Your task to perform on an android device: Empty the shopping cart on costco.com. Search for "dell xps" on costco.com, select the first entry, add it to the cart, then select checkout. Image 0: 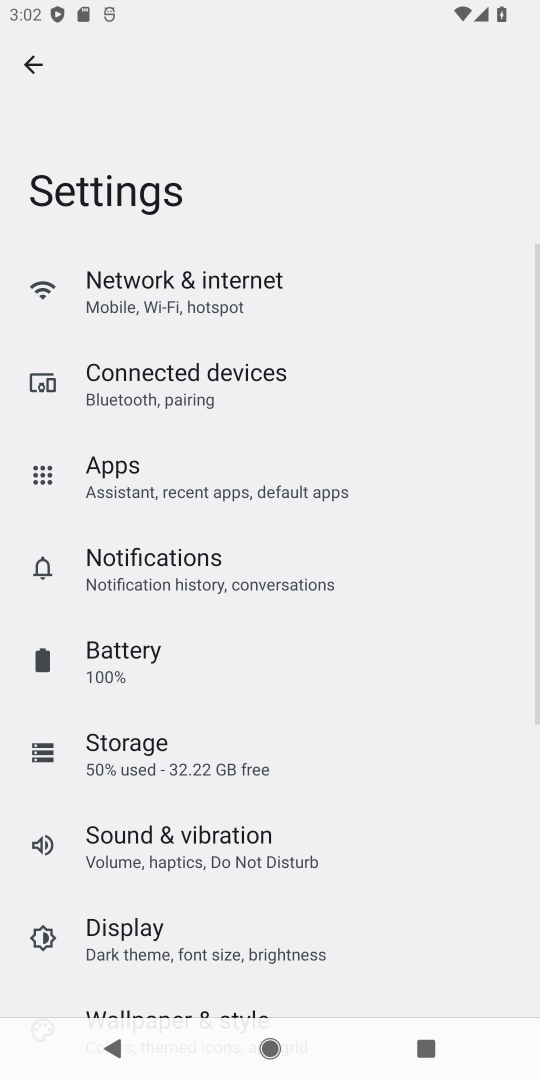
Step 0: press home button
Your task to perform on an android device: Empty the shopping cart on costco.com. Search for "dell xps" on costco.com, select the first entry, add it to the cart, then select checkout. Image 1: 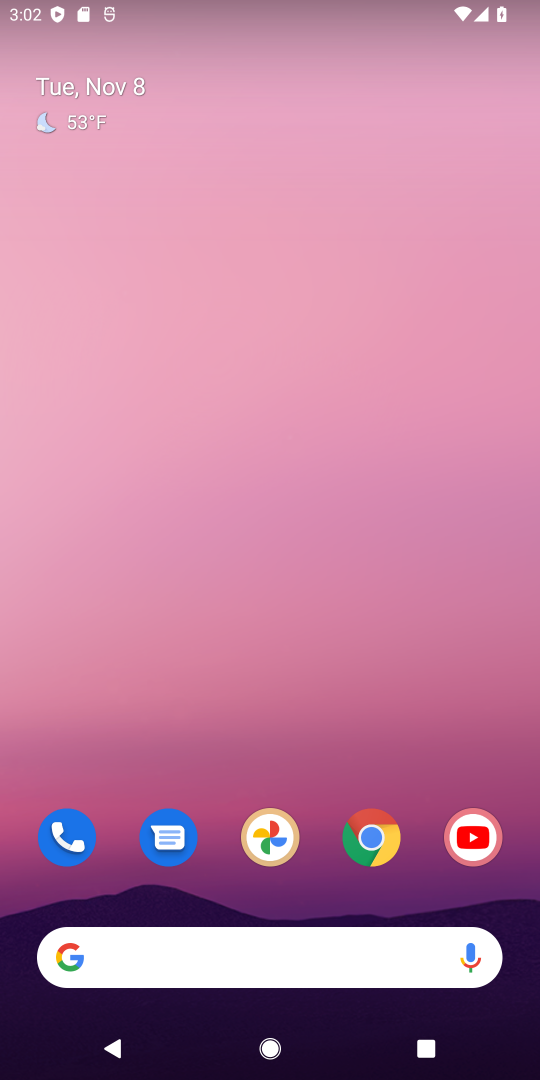
Step 1: click (366, 839)
Your task to perform on an android device: Empty the shopping cart on costco.com. Search for "dell xps" on costco.com, select the first entry, add it to the cart, then select checkout. Image 2: 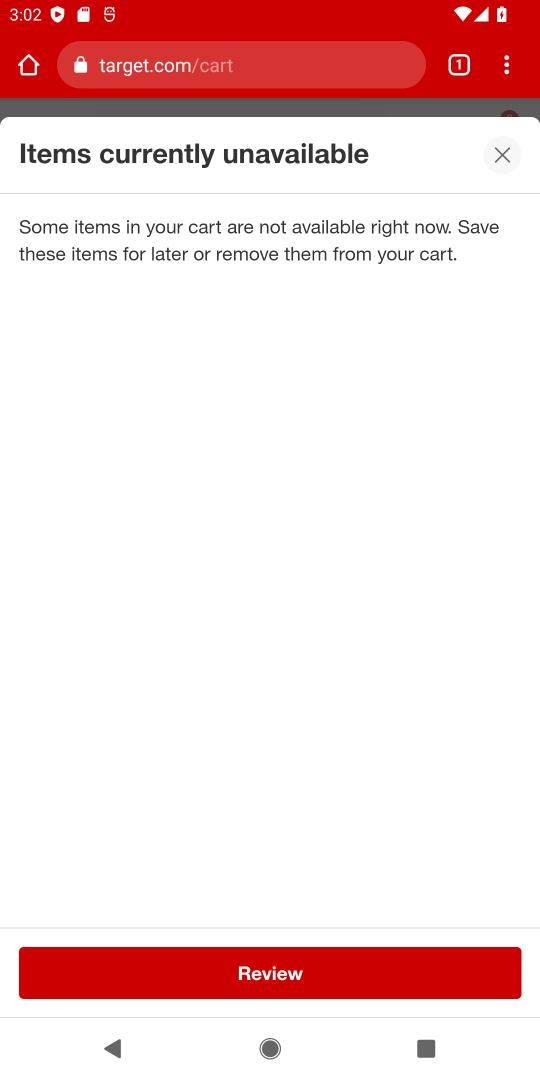
Step 2: click (173, 57)
Your task to perform on an android device: Empty the shopping cart on costco.com. Search for "dell xps" on costco.com, select the first entry, add it to the cart, then select checkout. Image 3: 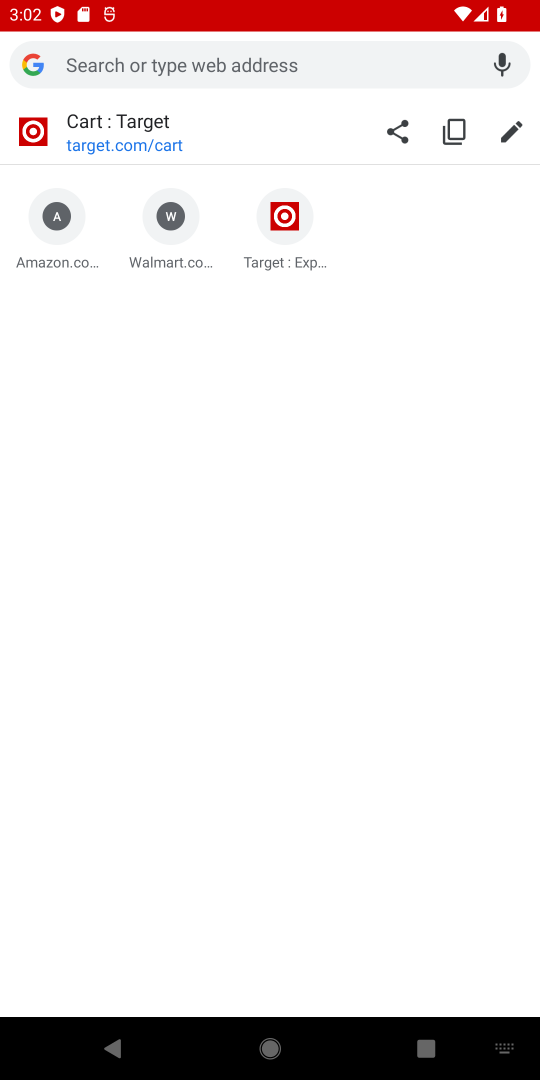
Step 3: type "costco"
Your task to perform on an android device: Empty the shopping cart on costco.com. Search for "dell xps" on costco.com, select the first entry, add it to the cart, then select checkout. Image 4: 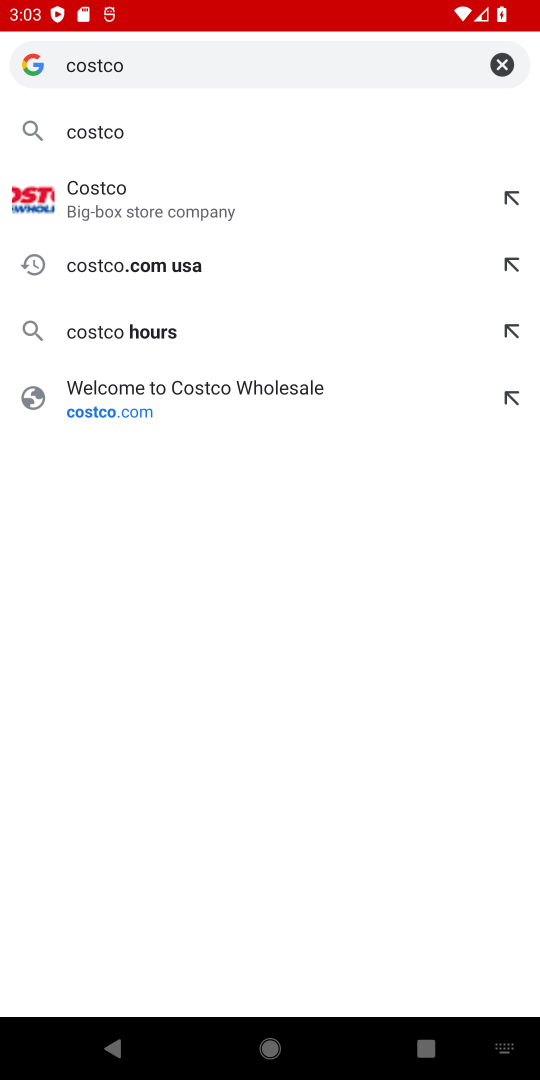
Step 4: click (120, 204)
Your task to perform on an android device: Empty the shopping cart on costco.com. Search for "dell xps" on costco.com, select the first entry, add it to the cart, then select checkout. Image 5: 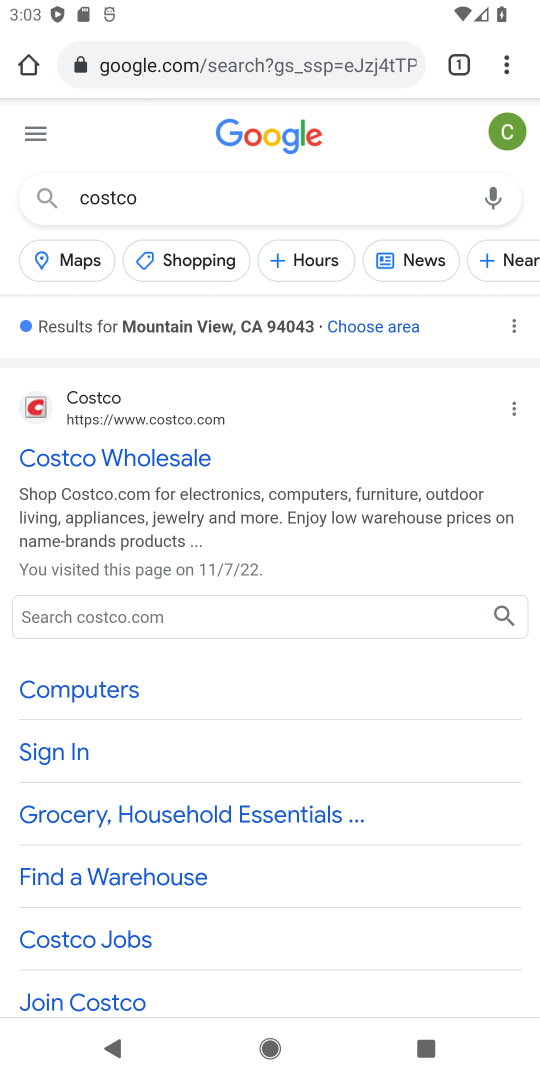
Step 5: click (128, 455)
Your task to perform on an android device: Empty the shopping cart on costco.com. Search for "dell xps" on costco.com, select the first entry, add it to the cart, then select checkout. Image 6: 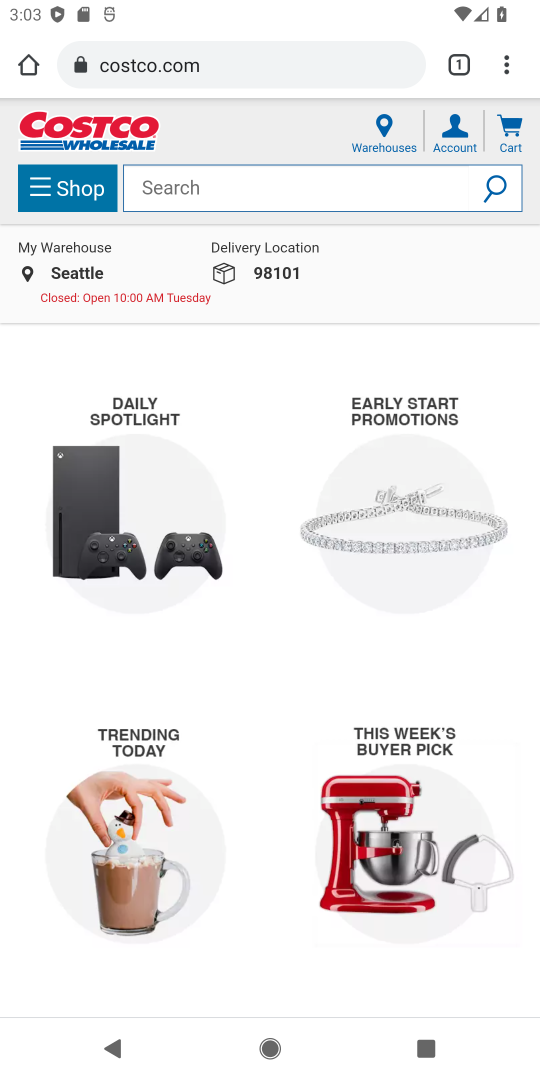
Step 6: click (182, 190)
Your task to perform on an android device: Empty the shopping cart on costco.com. Search for "dell xps" on costco.com, select the first entry, add it to the cart, then select checkout. Image 7: 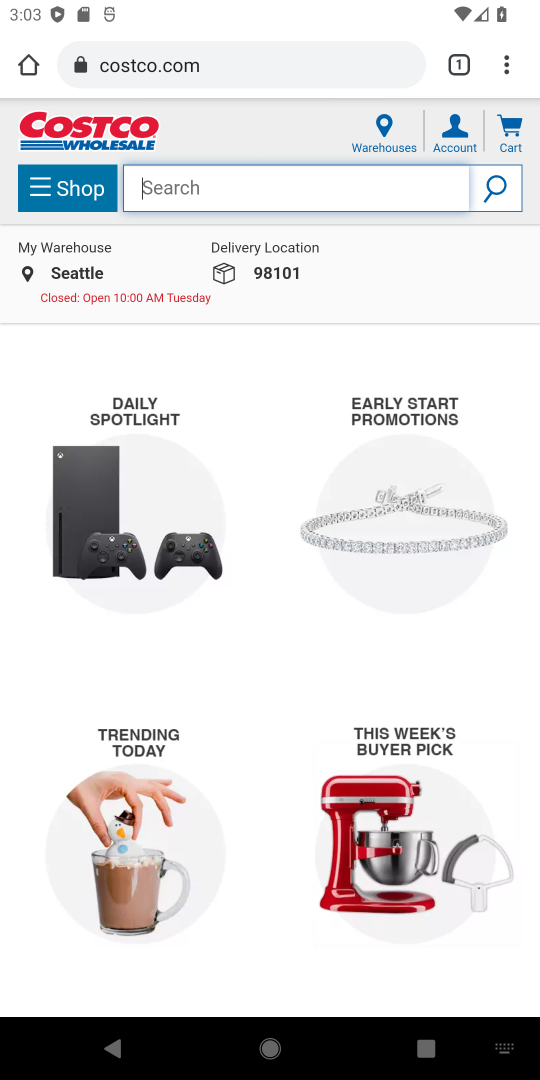
Step 7: type "dell xps"
Your task to perform on an android device: Empty the shopping cart on costco.com. Search for "dell xps" on costco.com, select the first entry, add it to the cart, then select checkout. Image 8: 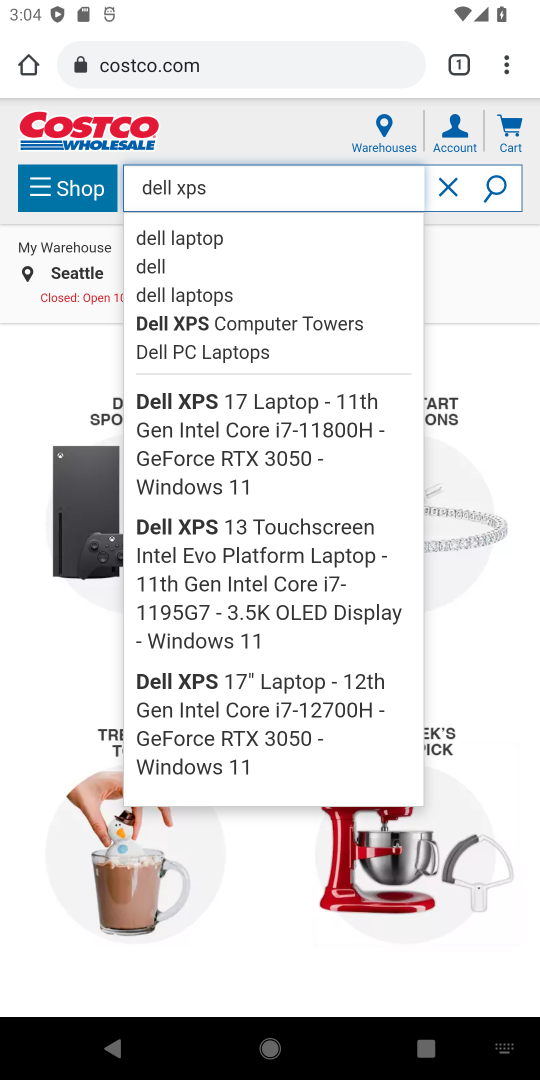
Step 8: click (189, 331)
Your task to perform on an android device: Empty the shopping cart on costco.com. Search for "dell xps" on costco.com, select the first entry, add it to the cart, then select checkout. Image 9: 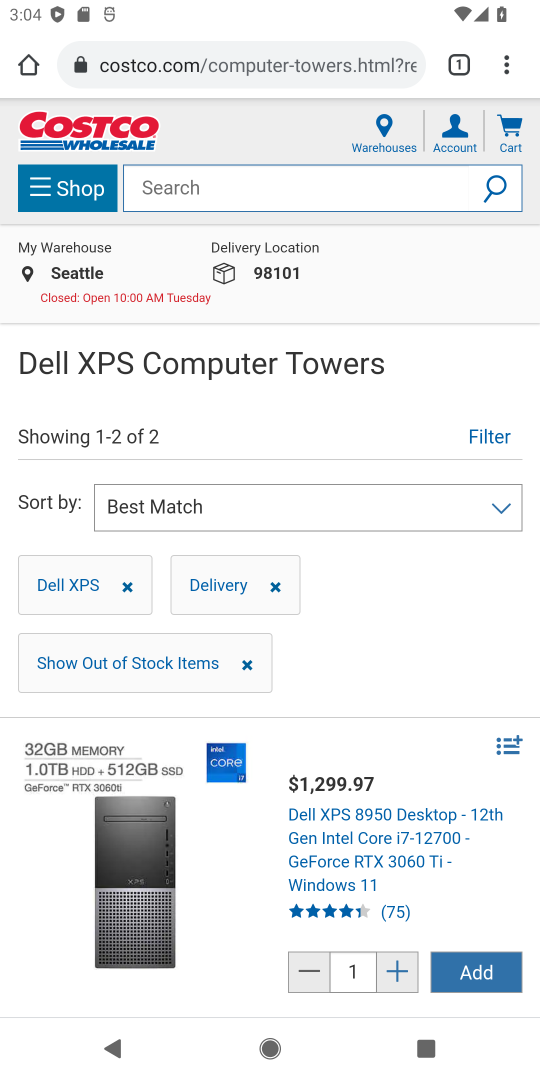
Step 9: drag from (225, 781) to (310, 296)
Your task to perform on an android device: Empty the shopping cart on costco.com. Search for "dell xps" on costco.com, select the first entry, add it to the cart, then select checkout. Image 10: 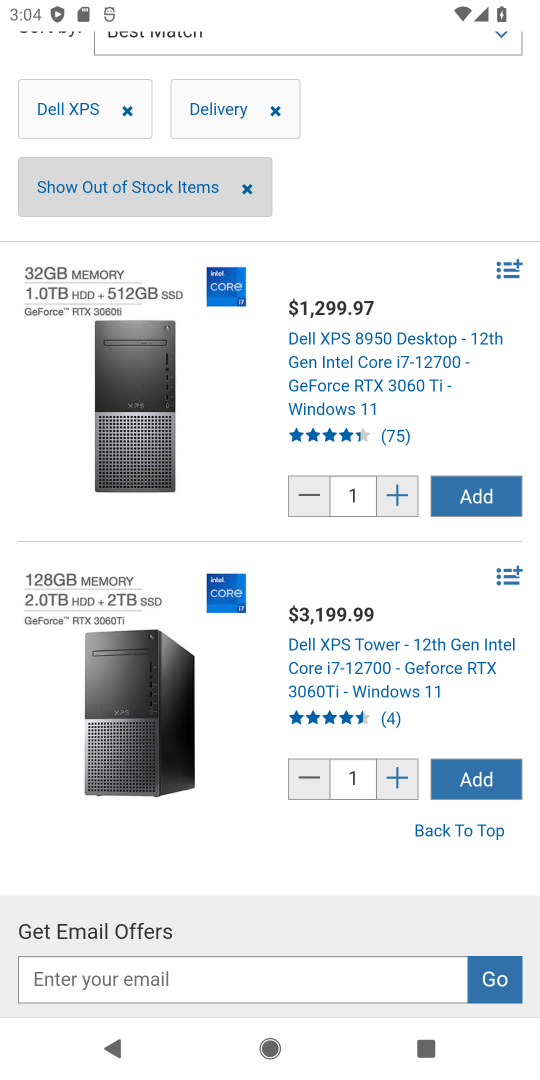
Step 10: click (318, 365)
Your task to perform on an android device: Empty the shopping cart on costco.com. Search for "dell xps" on costco.com, select the first entry, add it to the cart, then select checkout. Image 11: 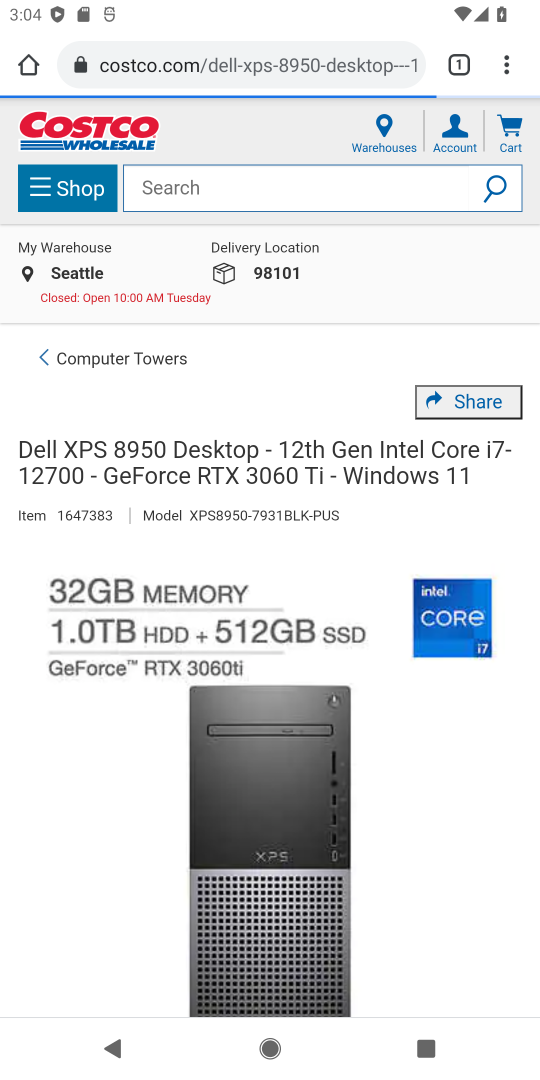
Step 11: drag from (353, 869) to (384, 260)
Your task to perform on an android device: Empty the shopping cart on costco.com. Search for "dell xps" on costco.com, select the first entry, add it to the cart, then select checkout. Image 12: 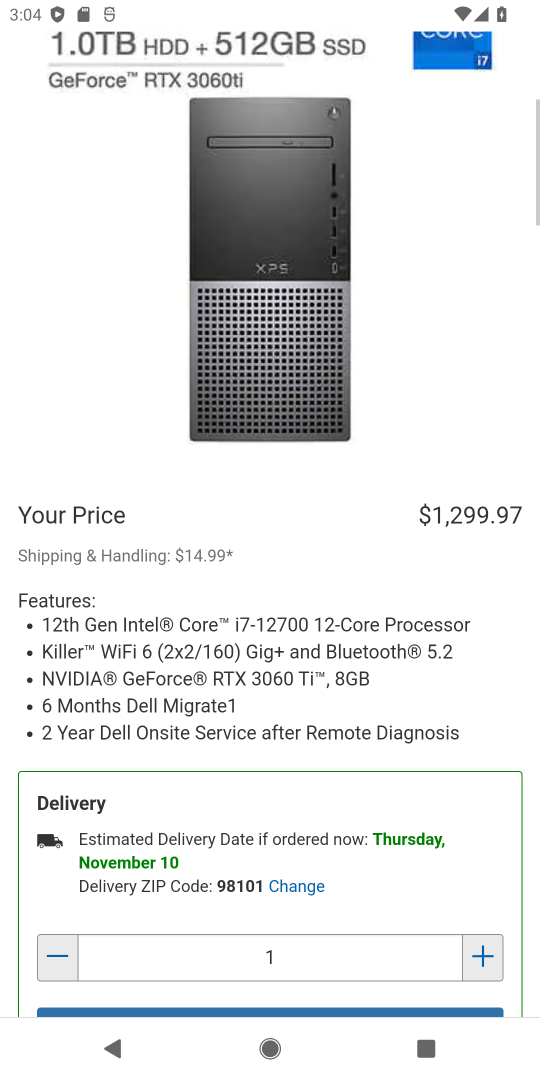
Step 12: drag from (320, 882) to (256, 346)
Your task to perform on an android device: Empty the shopping cart on costco.com. Search for "dell xps" on costco.com, select the first entry, add it to the cart, then select checkout. Image 13: 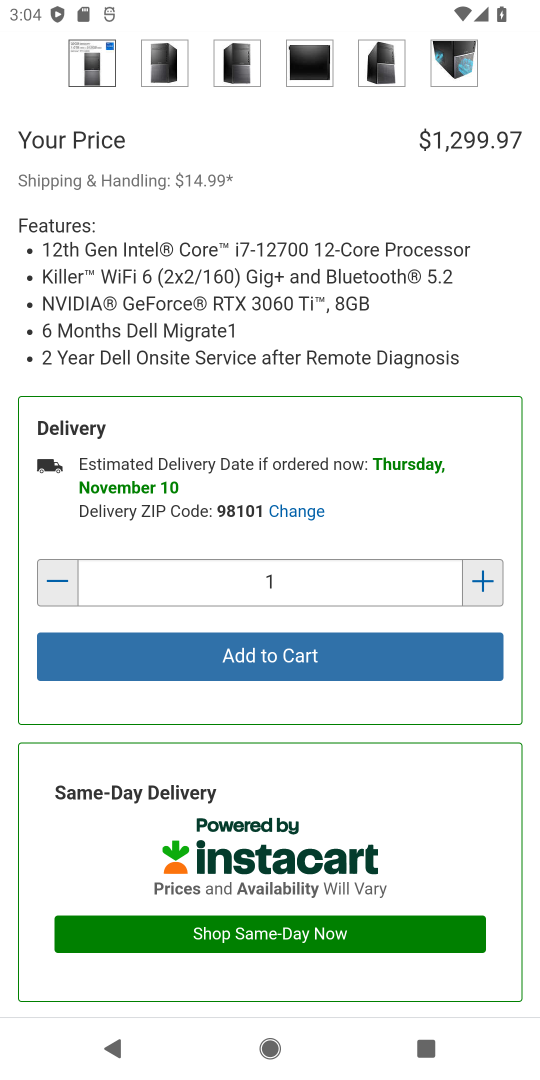
Step 13: click (253, 574)
Your task to perform on an android device: Empty the shopping cart on costco.com. Search for "dell xps" on costco.com, select the first entry, add it to the cart, then select checkout. Image 14: 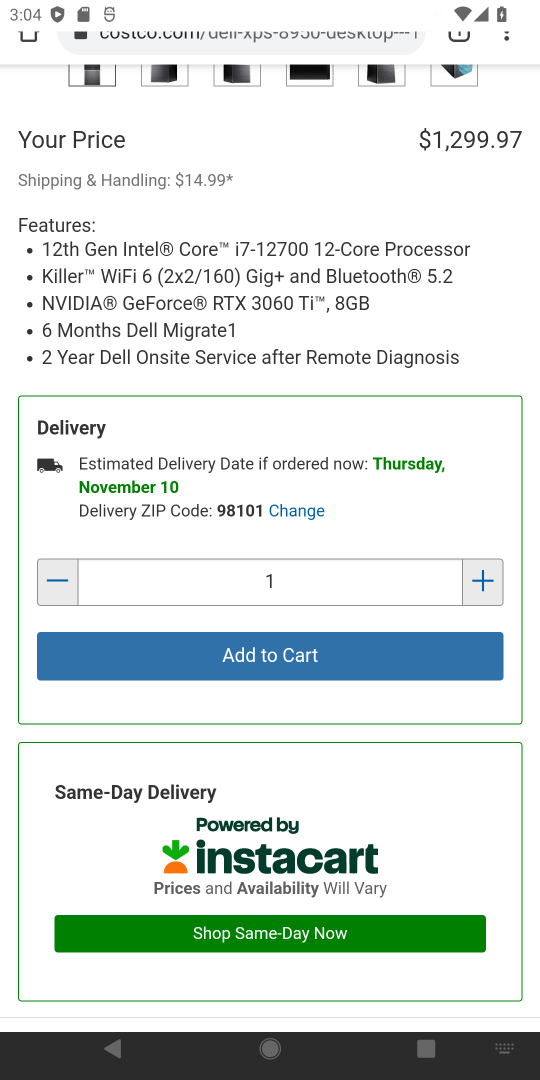
Step 14: click (255, 670)
Your task to perform on an android device: Empty the shopping cart on costco.com. Search for "dell xps" on costco.com, select the first entry, add it to the cart, then select checkout. Image 15: 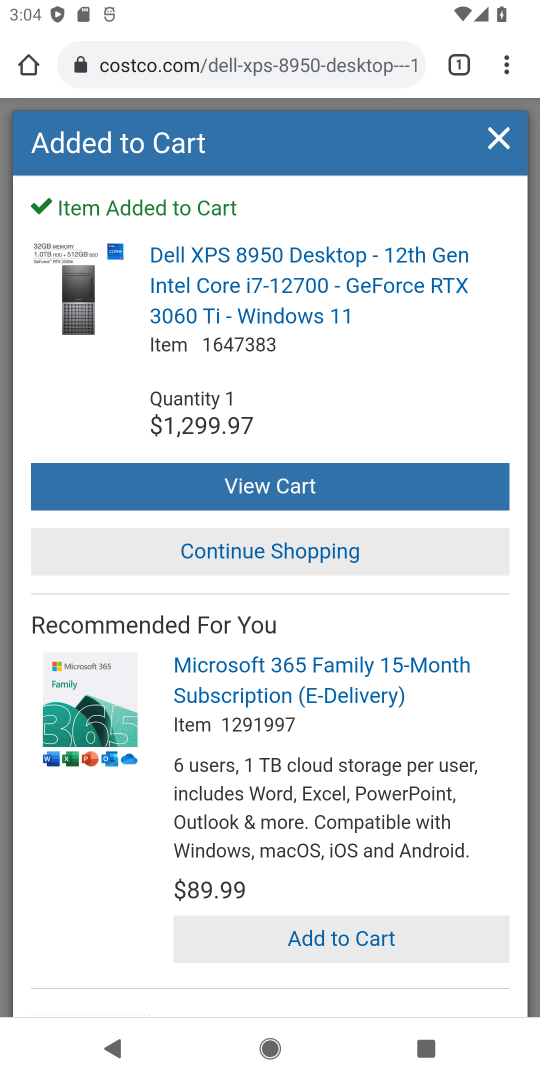
Step 15: click (272, 658)
Your task to perform on an android device: Empty the shopping cart on costco.com. Search for "dell xps" on costco.com, select the first entry, add it to the cart, then select checkout. Image 16: 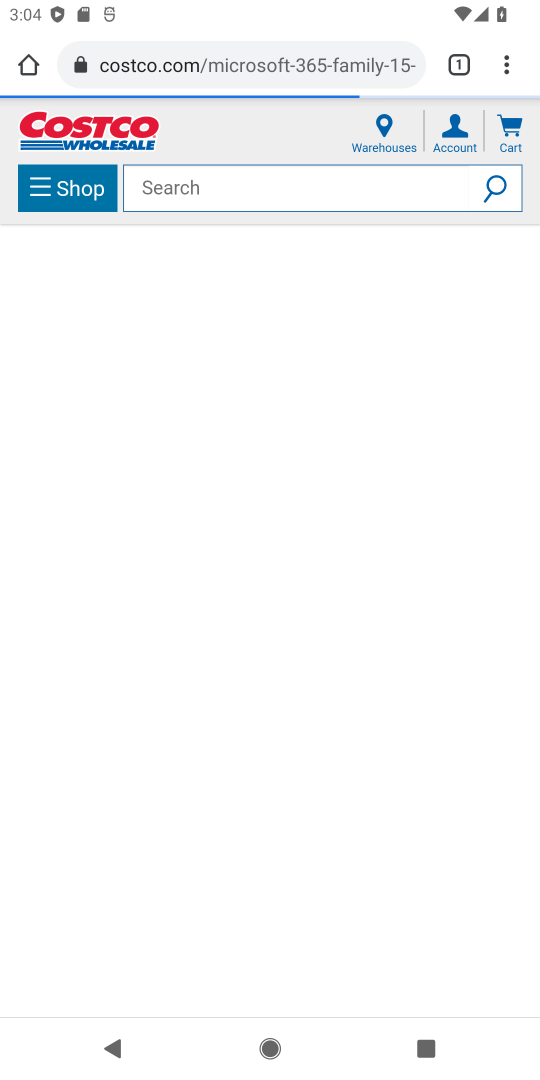
Step 16: click (248, 496)
Your task to perform on an android device: Empty the shopping cart on costco.com. Search for "dell xps" on costco.com, select the first entry, add it to the cart, then select checkout. Image 17: 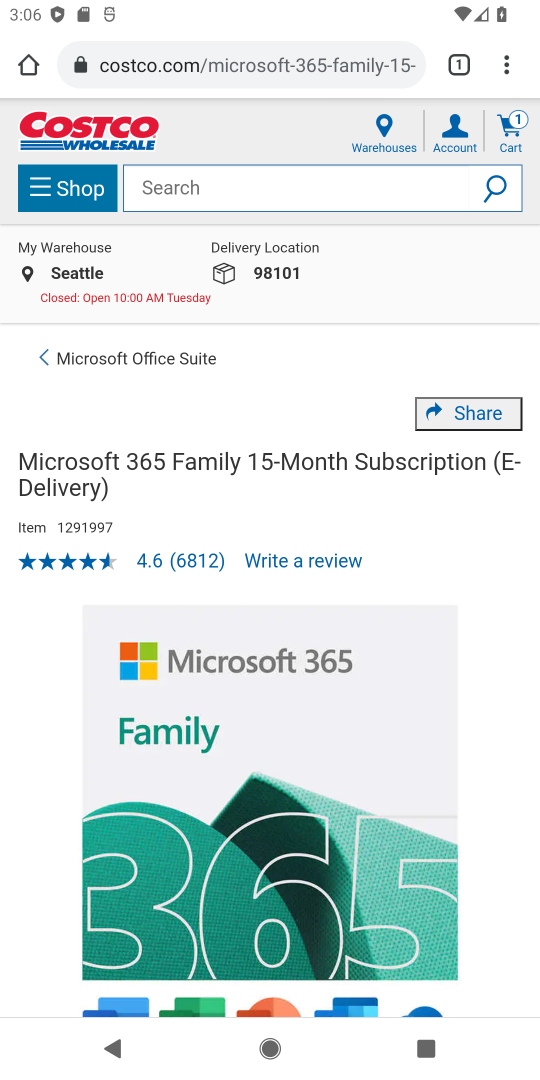
Step 17: click (145, 185)
Your task to perform on an android device: Empty the shopping cart on costco.com. Search for "dell xps" on costco.com, select the first entry, add it to the cart, then select checkout. Image 18: 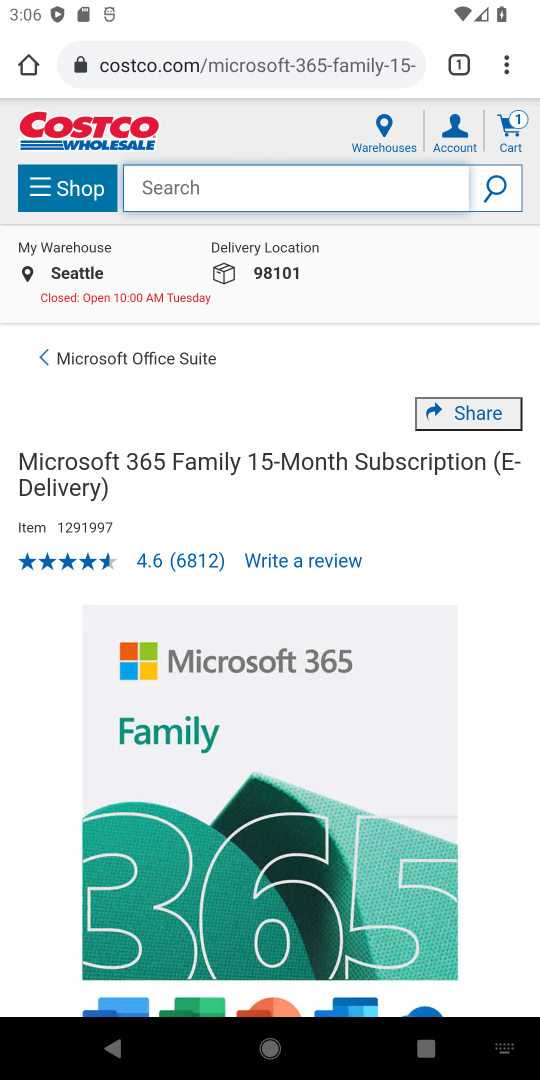
Step 18: drag from (290, 758) to (280, 662)
Your task to perform on an android device: Empty the shopping cart on costco.com. Search for "dell xps" on costco.com, select the first entry, add it to the cart, then select checkout. Image 19: 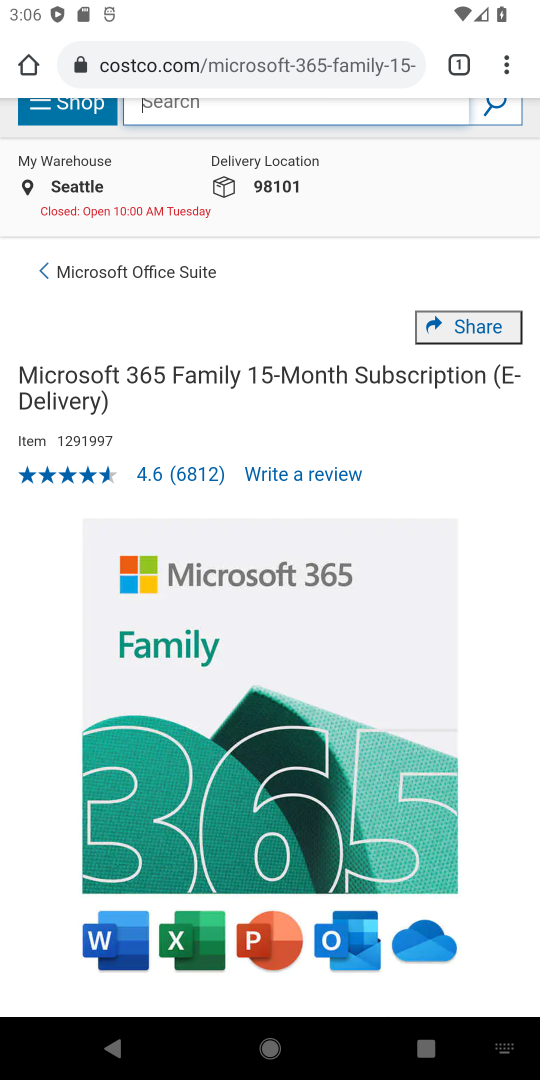
Step 19: drag from (287, 634) to (272, 153)
Your task to perform on an android device: Empty the shopping cart on costco.com. Search for "dell xps" on costco.com, select the first entry, add it to the cart, then select checkout. Image 20: 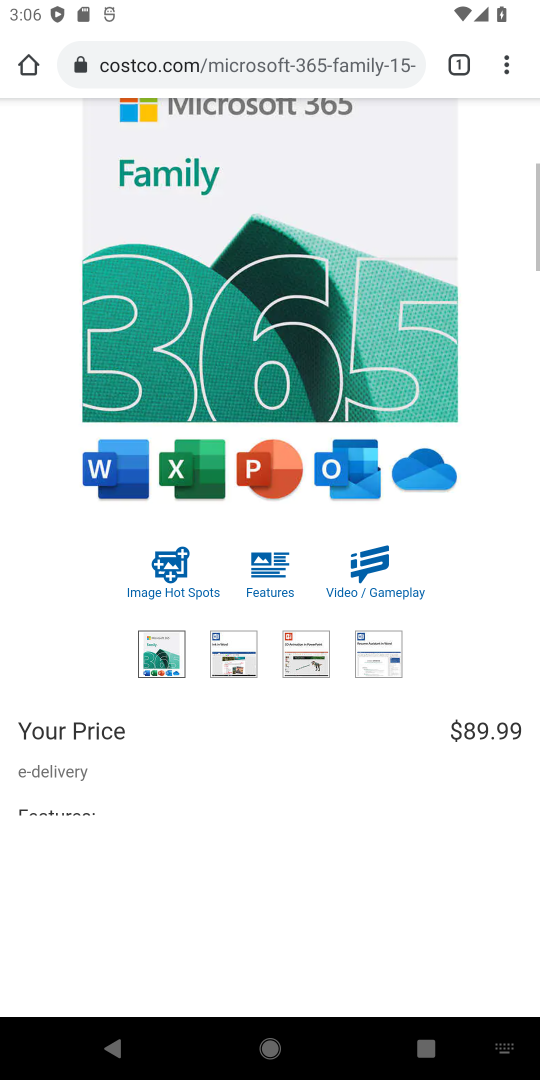
Step 20: drag from (202, 406) to (202, 1048)
Your task to perform on an android device: Empty the shopping cart on costco.com. Search for "dell xps" on costco.com, select the first entry, add it to the cart, then select checkout. Image 21: 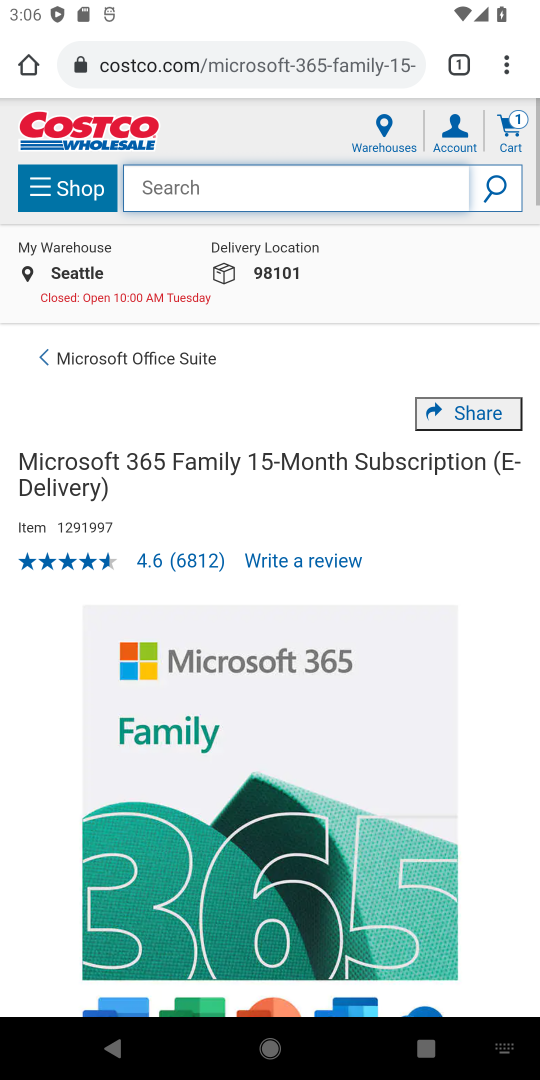
Step 21: drag from (295, 346) to (311, 907)
Your task to perform on an android device: Empty the shopping cart on costco.com. Search for "dell xps" on costco.com, select the first entry, add it to the cart, then select checkout. Image 22: 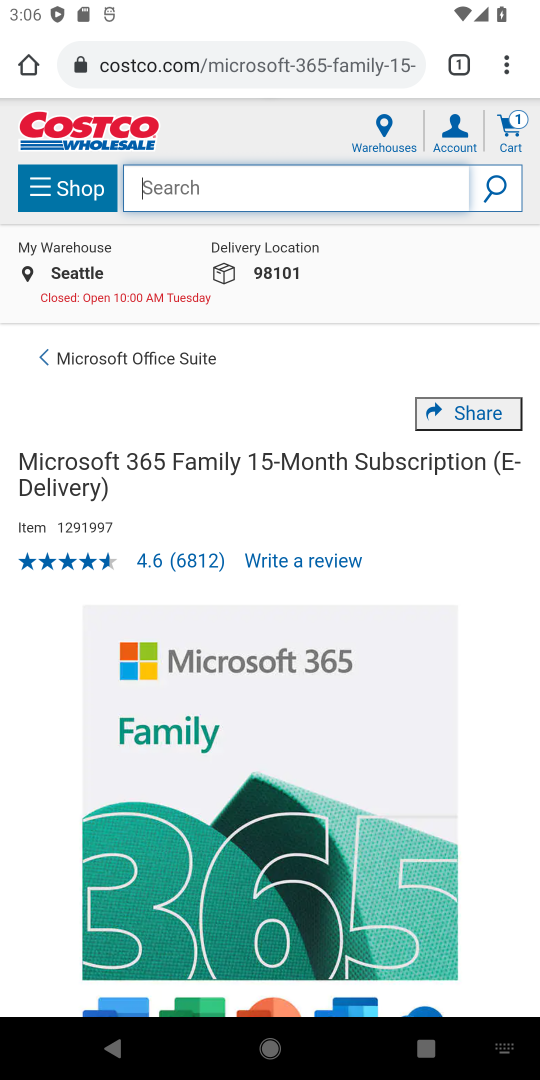
Step 22: click (487, 129)
Your task to perform on an android device: Empty the shopping cart on costco.com. Search for "dell xps" on costco.com, select the first entry, add it to the cart, then select checkout. Image 23: 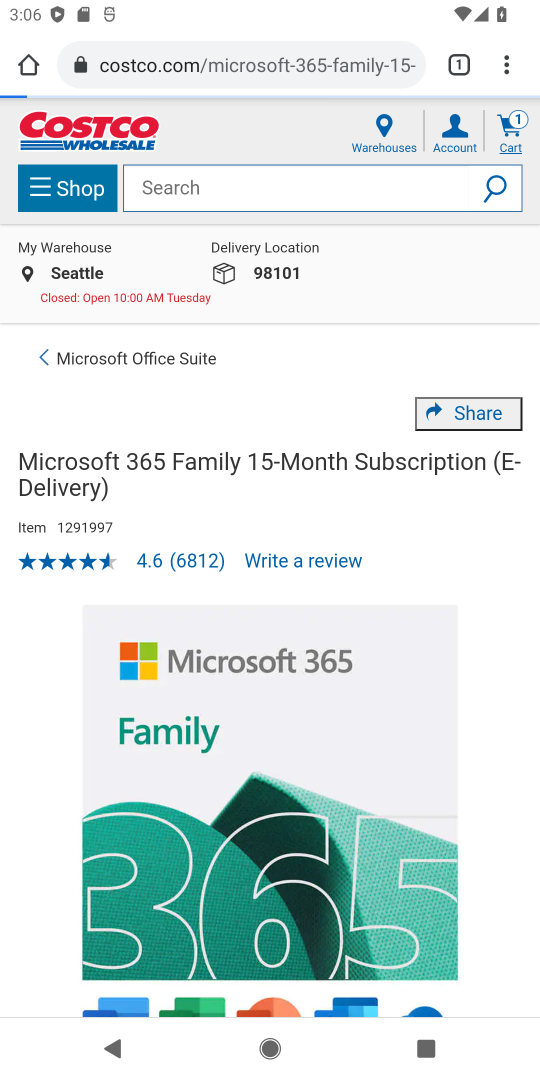
Step 23: click (509, 132)
Your task to perform on an android device: Empty the shopping cart on costco.com. Search for "dell xps" on costco.com, select the first entry, add it to the cart, then select checkout. Image 24: 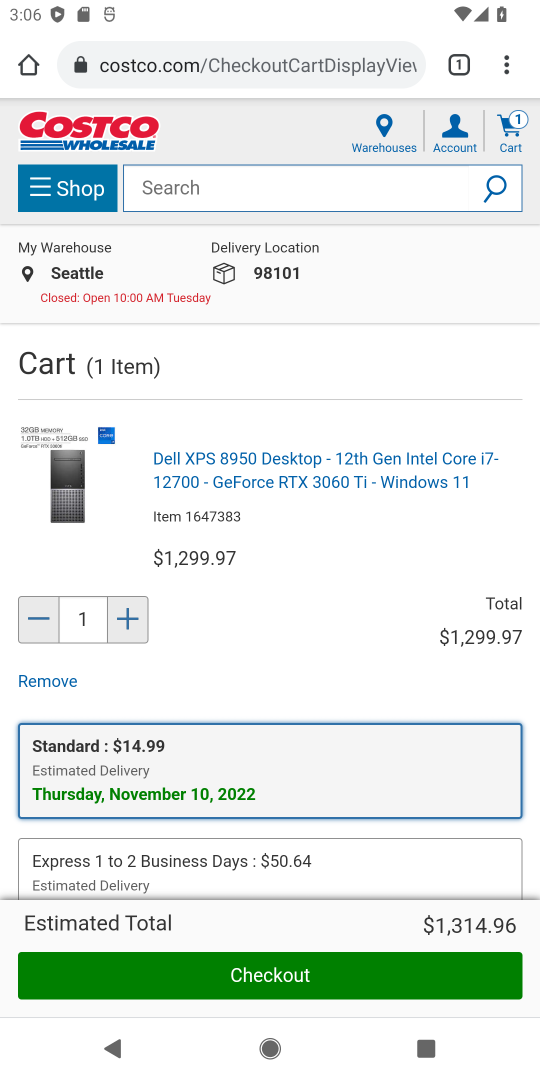
Step 24: click (265, 984)
Your task to perform on an android device: Empty the shopping cart on costco.com. Search for "dell xps" on costco.com, select the first entry, add it to the cart, then select checkout. Image 25: 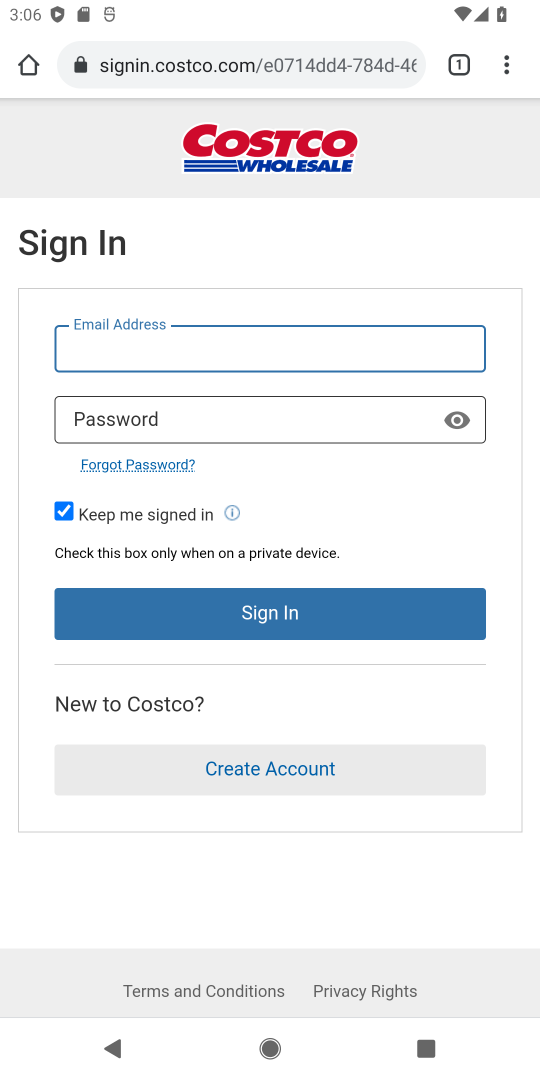
Step 25: task complete